Your task to perform on an android device: turn on airplane mode Image 0: 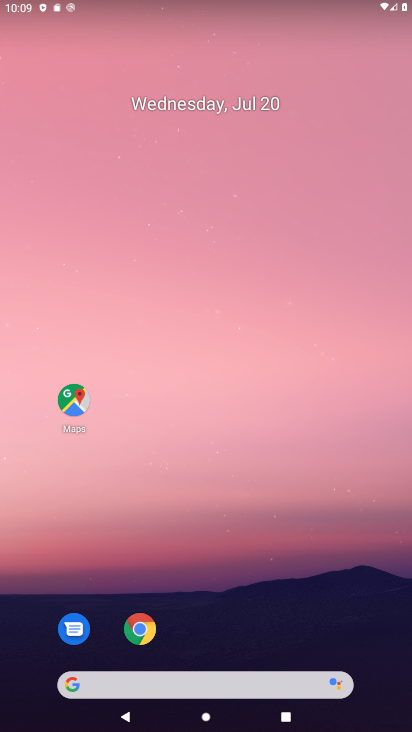
Step 0: drag from (266, 576) to (243, 13)
Your task to perform on an android device: turn on airplane mode Image 1: 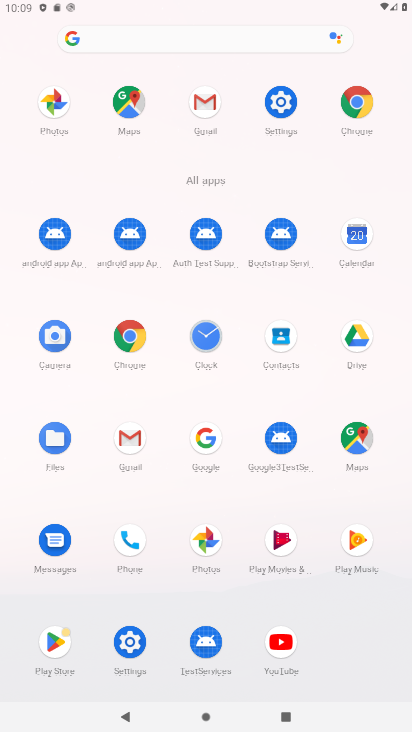
Step 1: click (124, 651)
Your task to perform on an android device: turn on airplane mode Image 2: 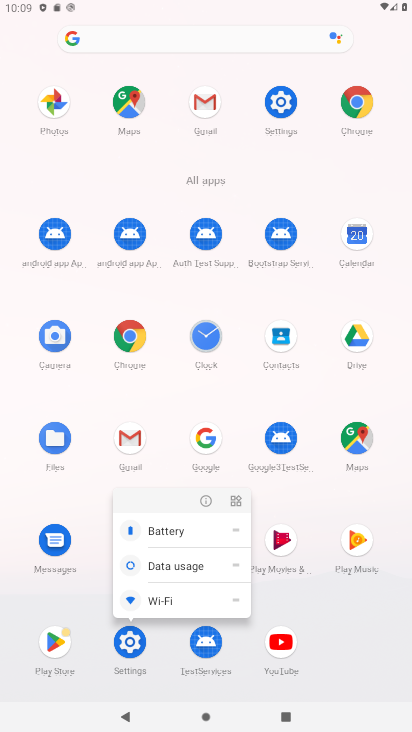
Step 2: click (202, 498)
Your task to perform on an android device: turn on airplane mode Image 3: 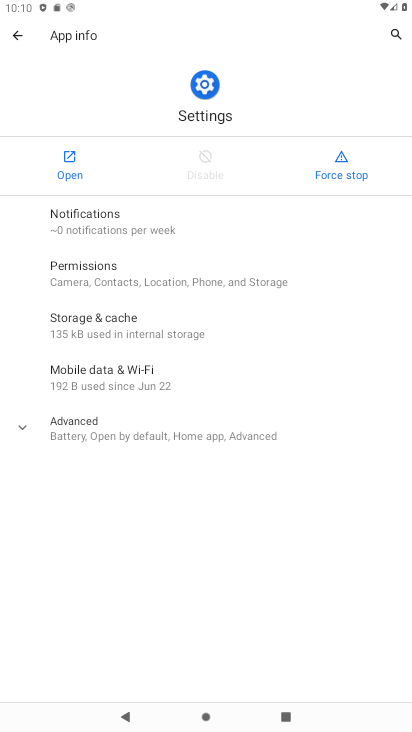
Step 3: click (68, 161)
Your task to perform on an android device: turn on airplane mode Image 4: 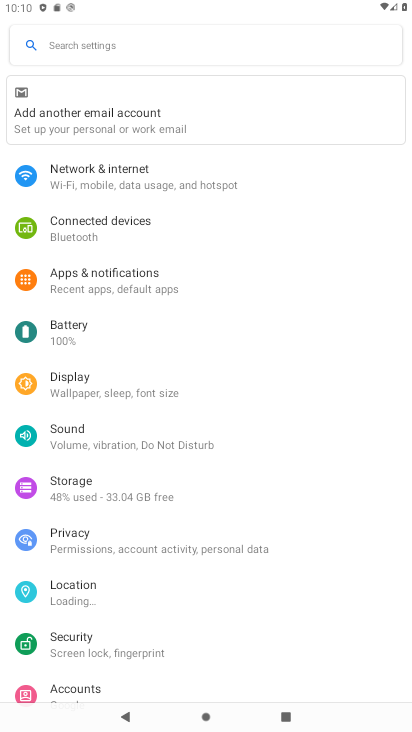
Step 4: click (173, 173)
Your task to perform on an android device: turn on airplane mode Image 5: 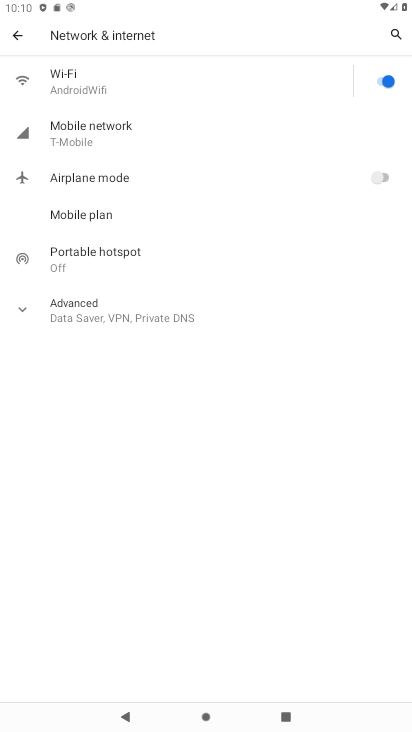
Step 5: click (206, 185)
Your task to perform on an android device: turn on airplane mode Image 6: 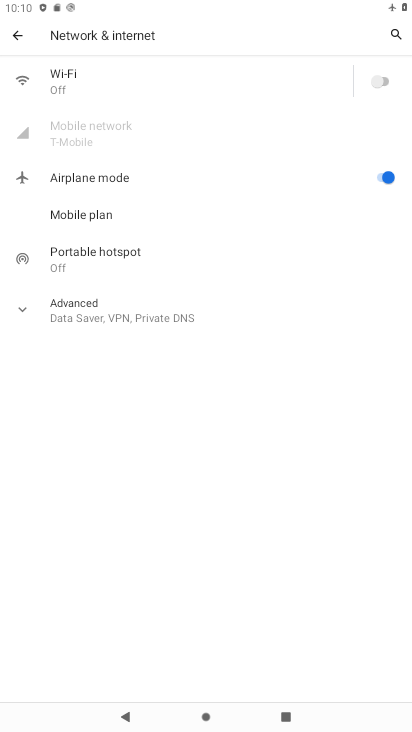
Step 6: task complete